Your task to perform on an android device: set the stopwatch Image 0: 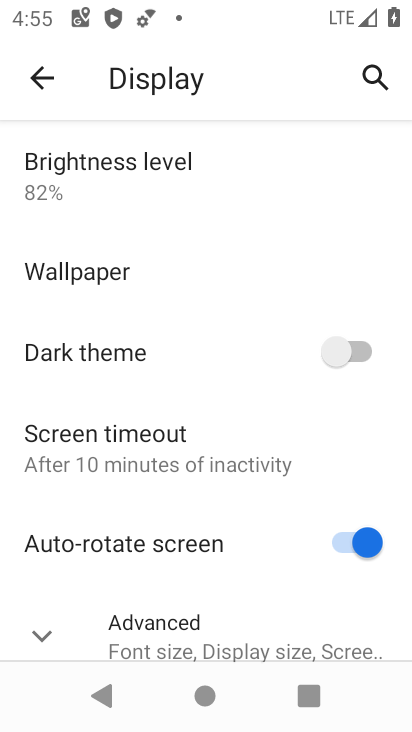
Step 0: press home button
Your task to perform on an android device: set the stopwatch Image 1: 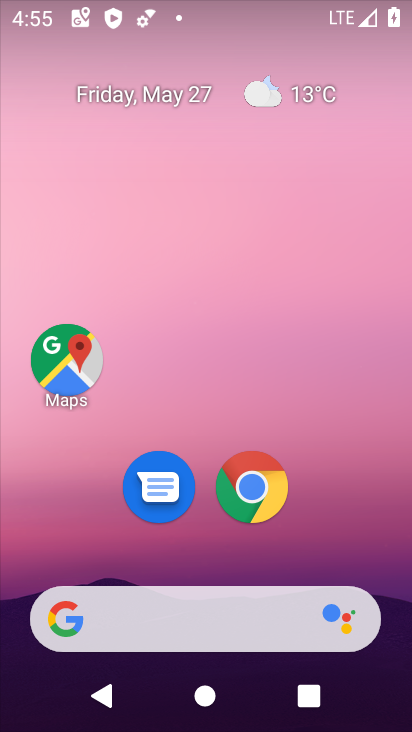
Step 1: drag from (327, 507) to (297, 21)
Your task to perform on an android device: set the stopwatch Image 2: 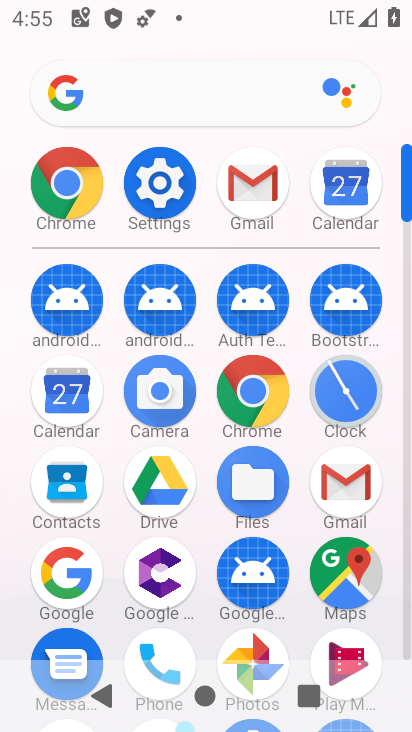
Step 2: click (338, 382)
Your task to perform on an android device: set the stopwatch Image 3: 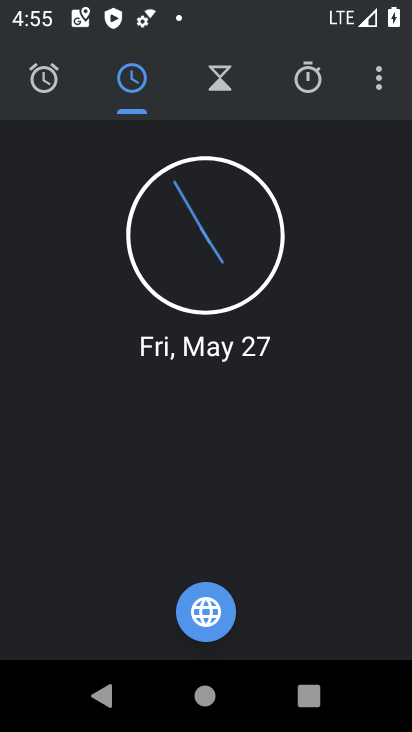
Step 3: click (316, 82)
Your task to perform on an android device: set the stopwatch Image 4: 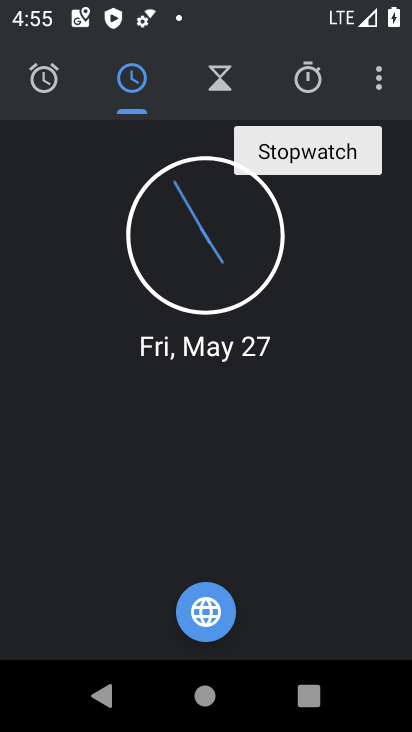
Step 4: click (309, 79)
Your task to perform on an android device: set the stopwatch Image 5: 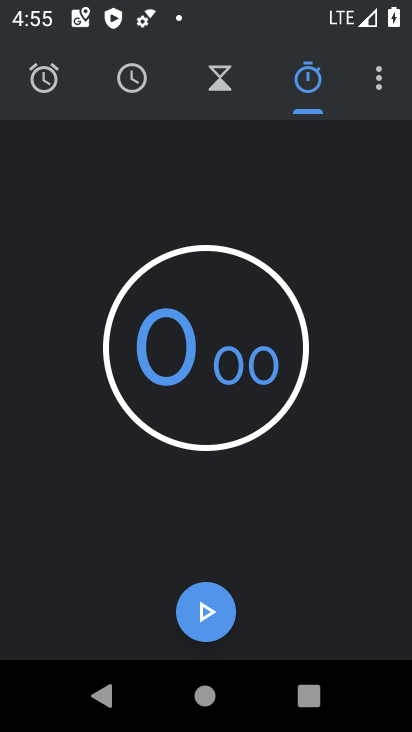
Step 5: click (199, 595)
Your task to perform on an android device: set the stopwatch Image 6: 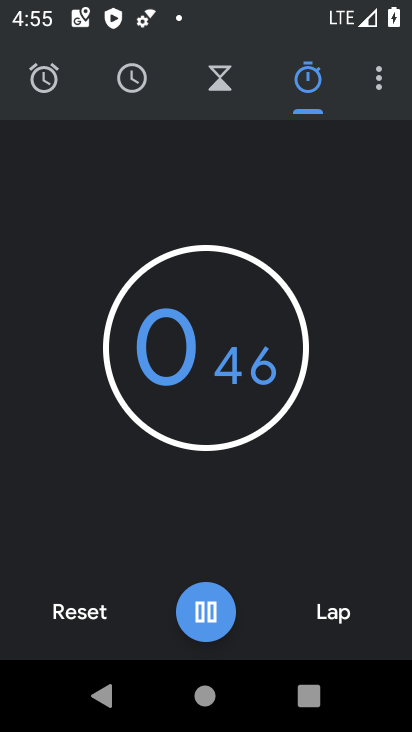
Step 6: click (200, 596)
Your task to perform on an android device: set the stopwatch Image 7: 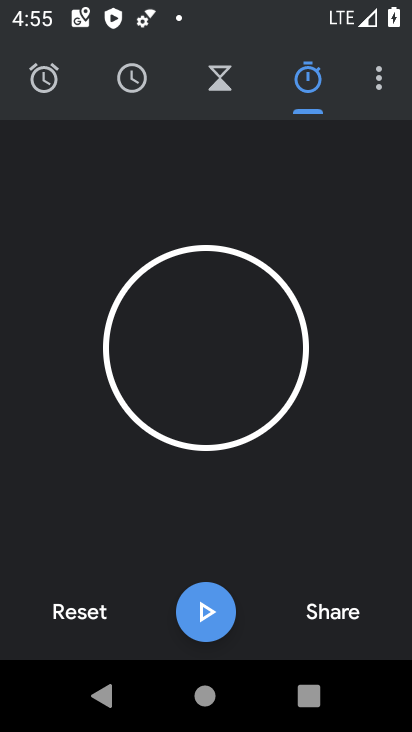
Step 7: task complete